Your task to perform on an android device: Open Google Chrome and open the bookmarks view Image 0: 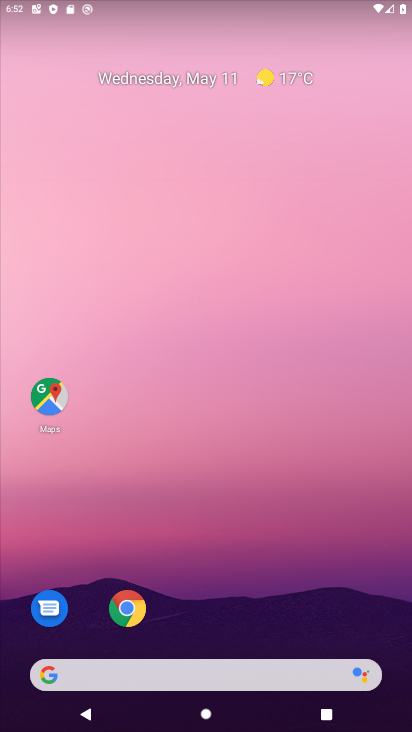
Step 0: drag from (314, 582) to (284, 79)
Your task to perform on an android device: Open Google Chrome and open the bookmarks view Image 1: 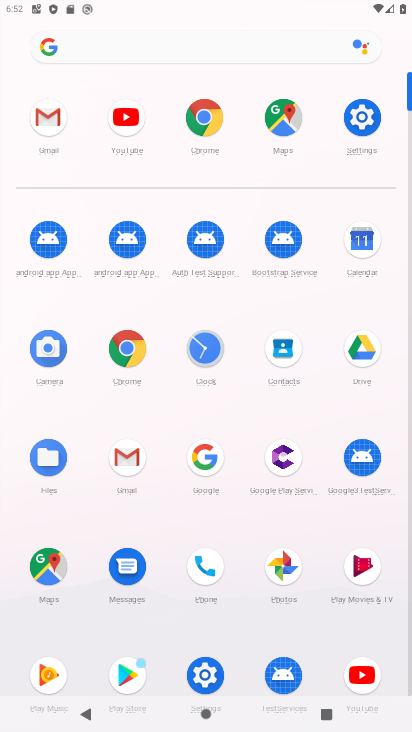
Step 1: click (364, 129)
Your task to perform on an android device: Open Google Chrome and open the bookmarks view Image 2: 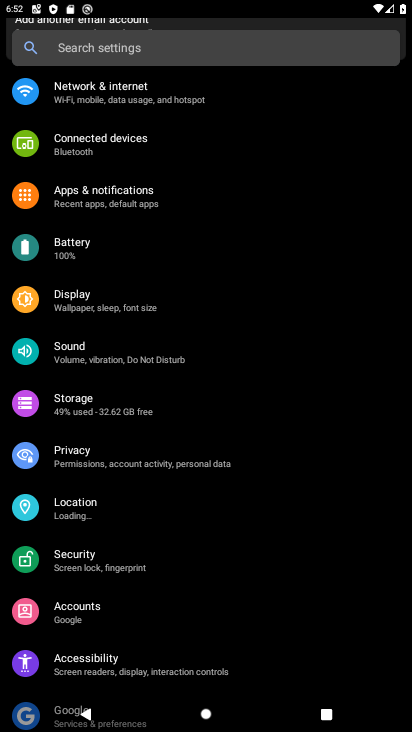
Step 2: drag from (223, 123) to (201, 374)
Your task to perform on an android device: Open Google Chrome and open the bookmarks view Image 3: 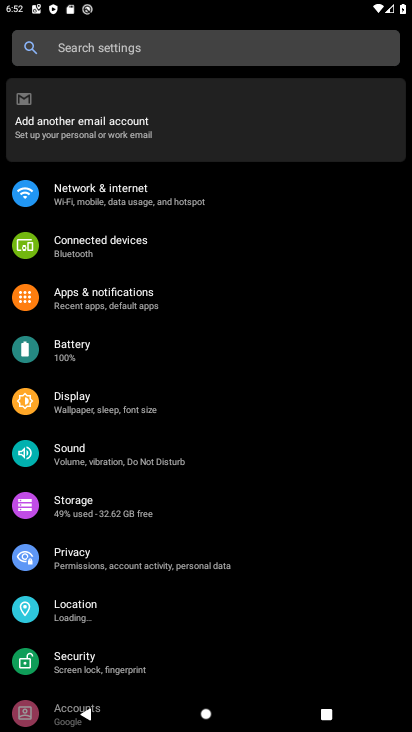
Step 3: click (219, 209)
Your task to perform on an android device: Open Google Chrome and open the bookmarks view Image 4: 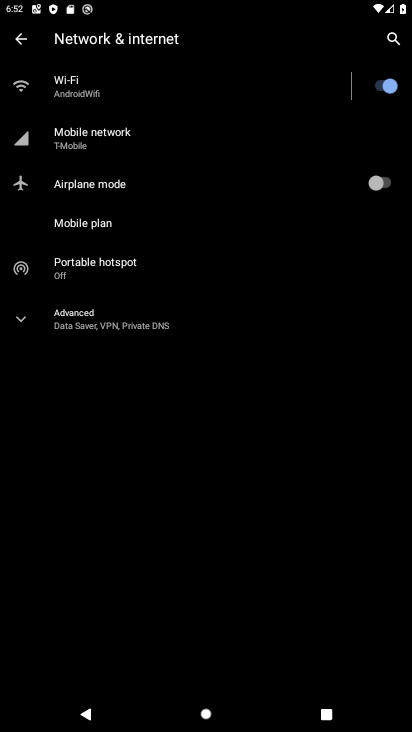
Step 4: task complete